Your task to perform on an android device: Open eBay Image 0: 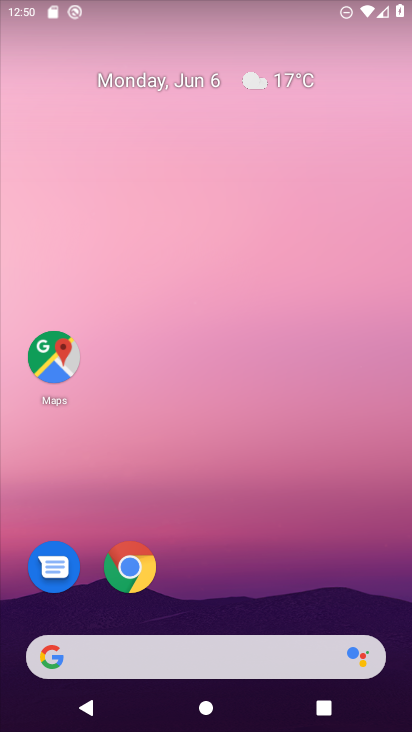
Step 0: click (125, 573)
Your task to perform on an android device: Open eBay Image 1: 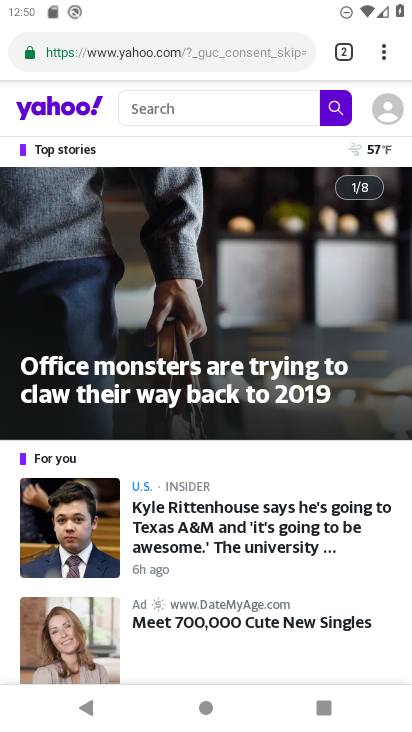
Step 1: click (382, 57)
Your task to perform on an android device: Open eBay Image 2: 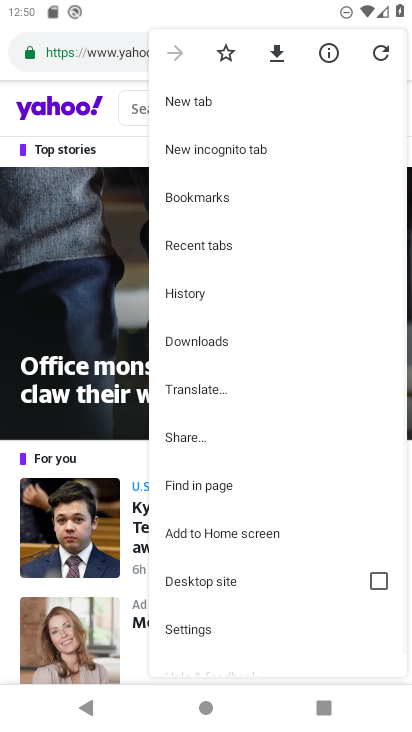
Step 2: click (186, 98)
Your task to perform on an android device: Open eBay Image 3: 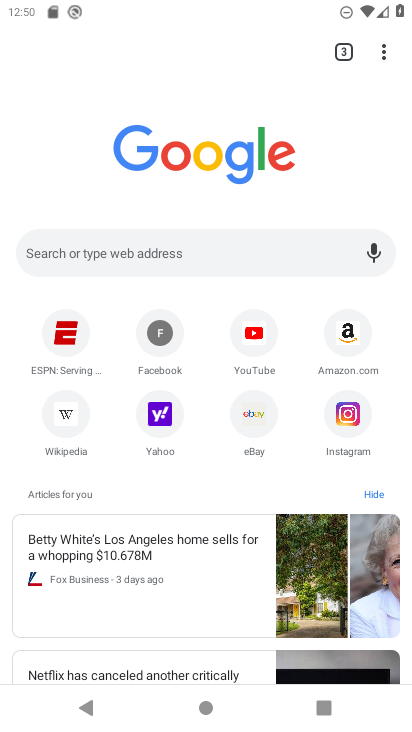
Step 3: click (252, 411)
Your task to perform on an android device: Open eBay Image 4: 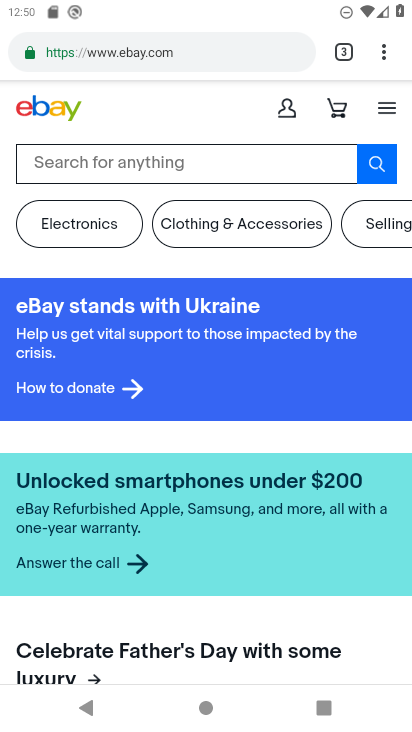
Step 4: task complete